Your task to perform on an android device: snooze an email in the gmail app Image 0: 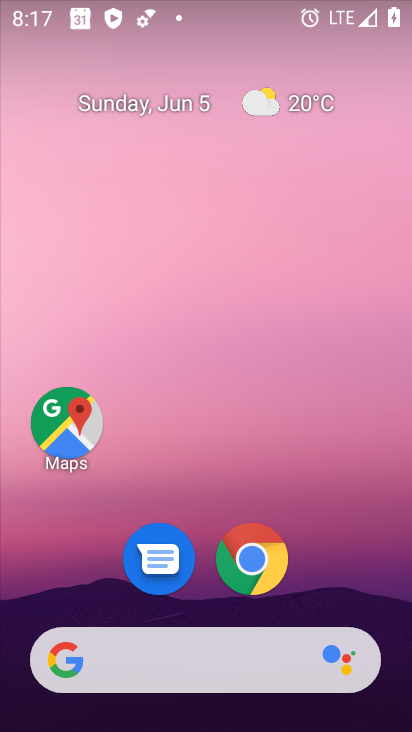
Step 0: drag from (380, 516) to (380, 93)
Your task to perform on an android device: snooze an email in the gmail app Image 1: 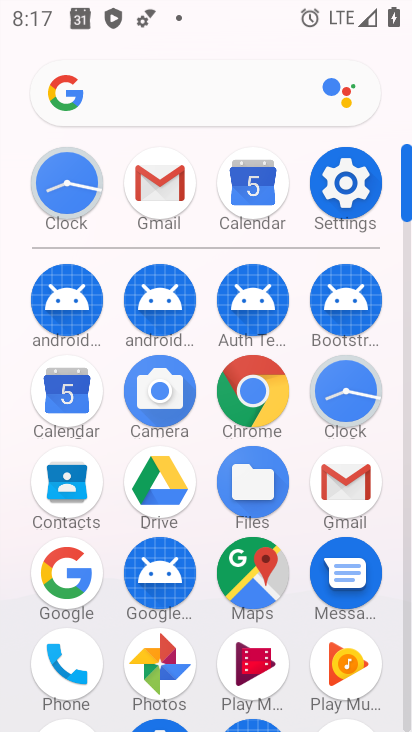
Step 1: click (172, 167)
Your task to perform on an android device: snooze an email in the gmail app Image 2: 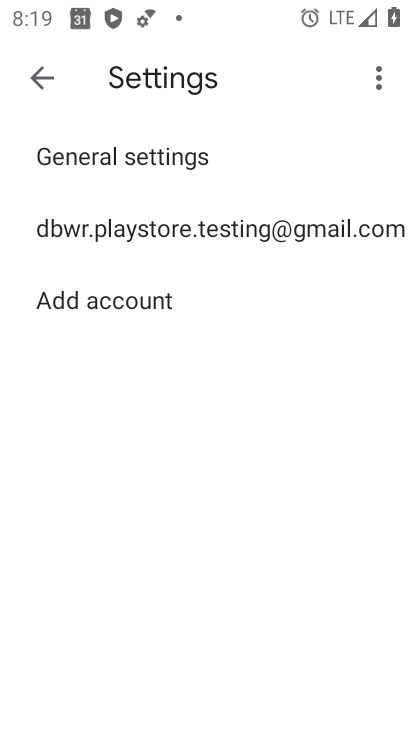
Step 2: click (36, 74)
Your task to perform on an android device: snooze an email in the gmail app Image 3: 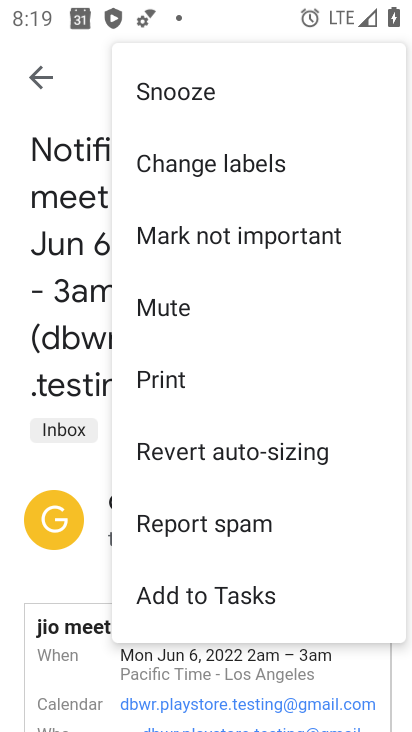
Step 3: click (36, 74)
Your task to perform on an android device: snooze an email in the gmail app Image 4: 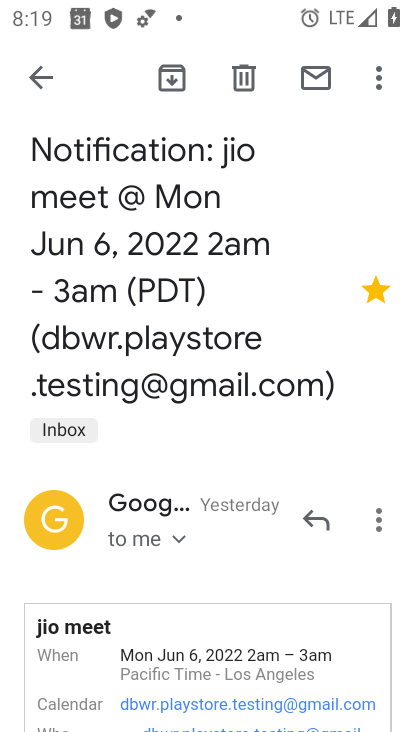
Step 4: click (379, 69)
Your task to perform on an android device: snooze an email in the gmail app Image 5: 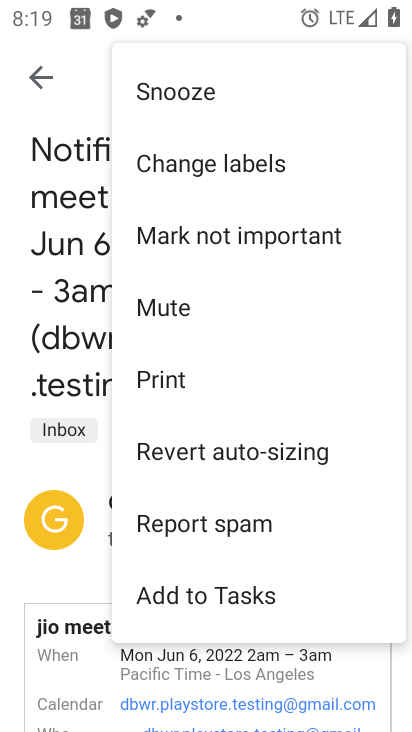
Step 5: click (219, 100)
Your task to perform on an android device: snooze an email in the gmail app Image 6: 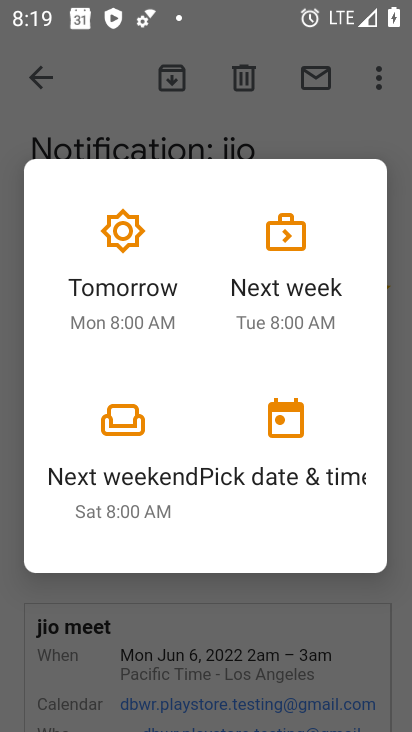
Step 6: click (111, 291)
Your task to perform on an android device: snooze an email in the gmail app Image 7: 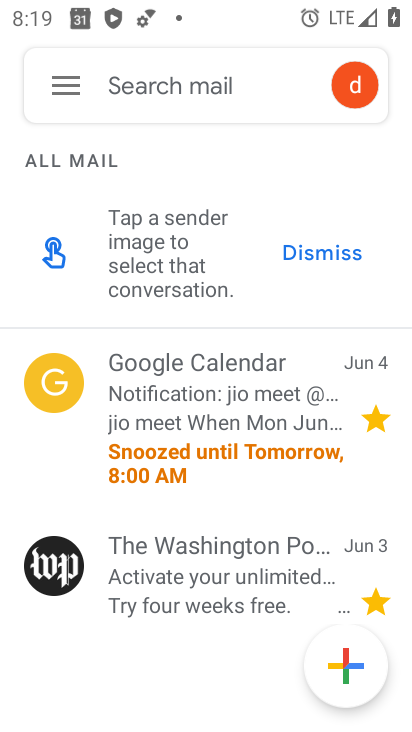
Step 7: task complete